Your task to perform on an android device: Open wifi settings Image 0: 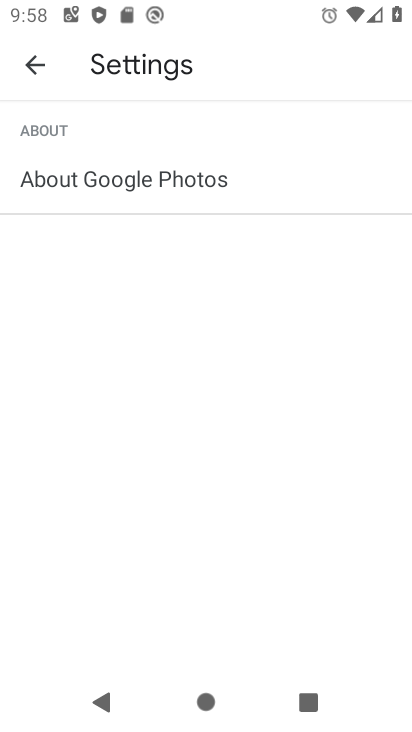
Step 0: press home button
Your task to perform on an android device: Open wifi settings Image 1: 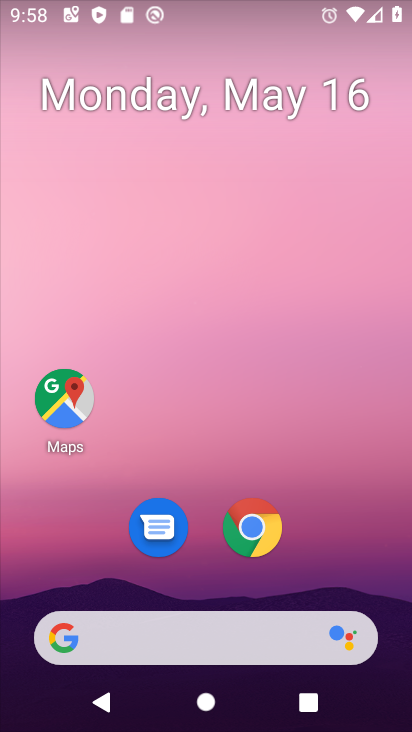
Step 1: drag from (332, 578) to (273, 26)
Your task to perform on an android device: Open wifi settings Image 2: 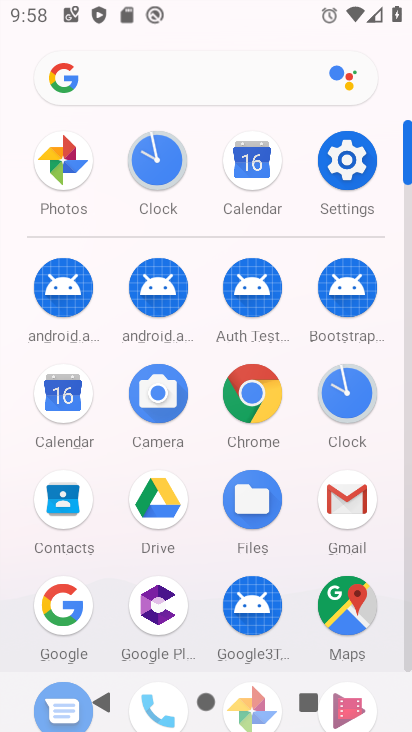
Step 2: click (343, 162)
Your task to perform on an android device: Open wifi settings Image 3: 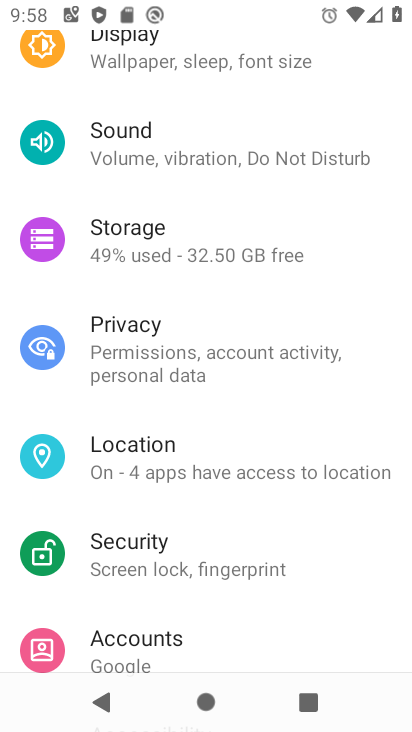
Step 3: drag from (241, 115) to (224, 562)
Your task to perform on an android device: Open wifi settings Image 4: 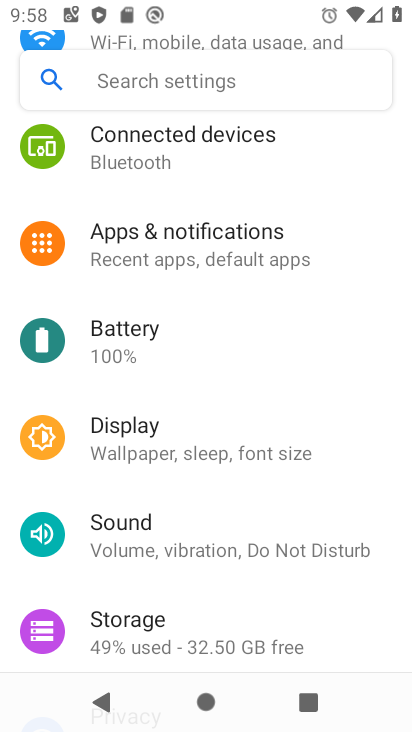
Step 4: drag from (201, 126) to (189, 306)
Your task to perform on an android device: Open wifi settings Image 5: 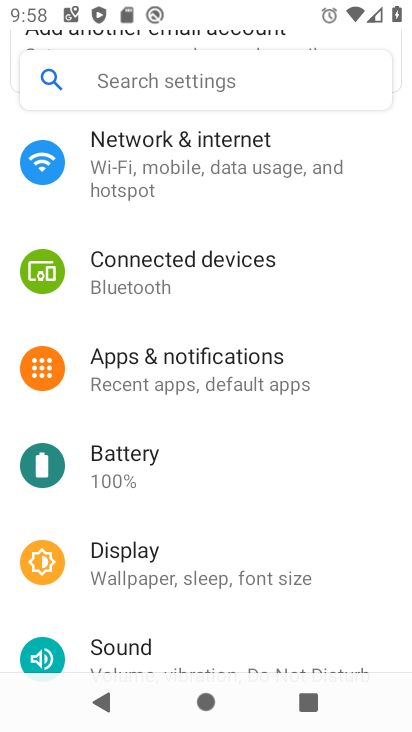
Step 5: click (161, 171)
Your task to perform on an android device: Open wifi settings Image 6: 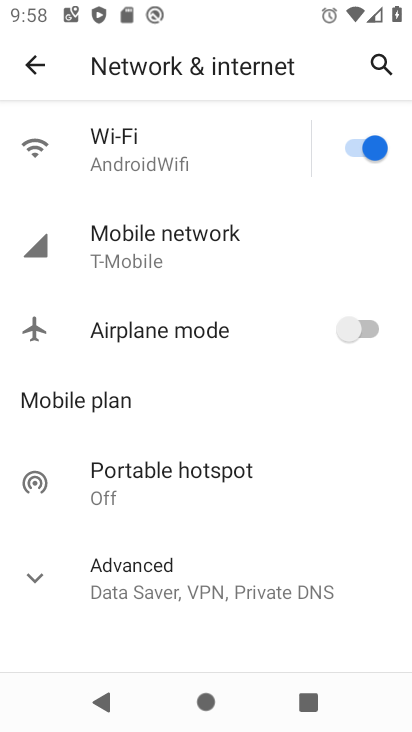
Step 6: click (101, 152)
Your task to perform on an android device: Open wifi settings Image 7: 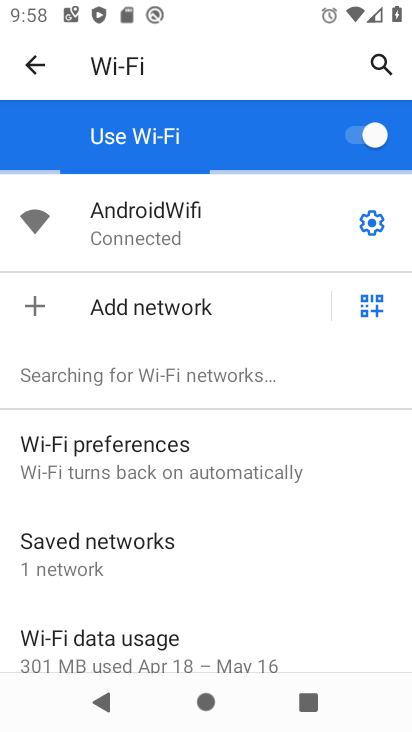
Step 7: task complete